Your task to perform on an android device: turn pop-ups on in chrome Image 0: 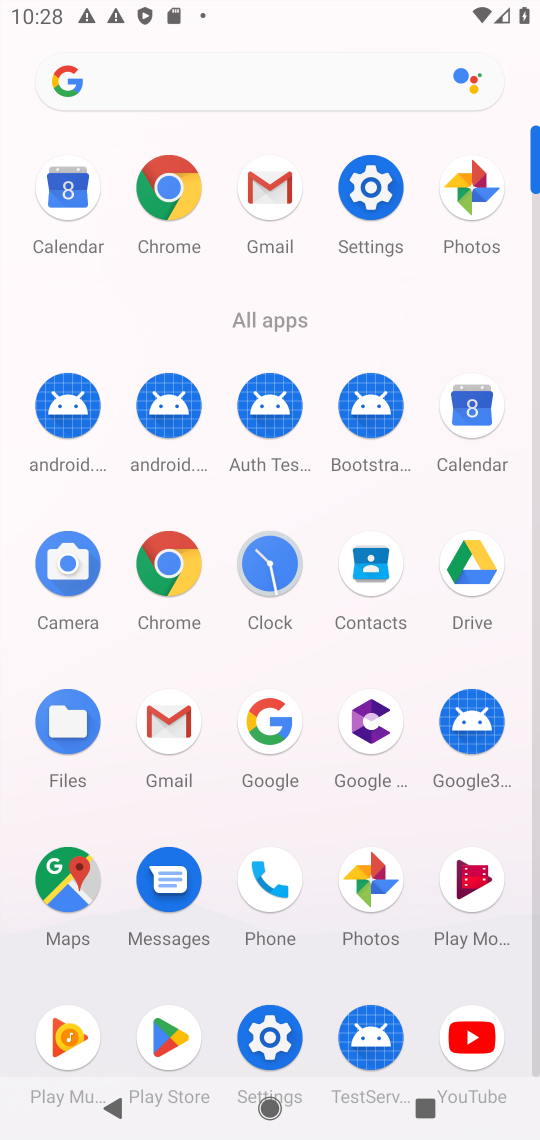
Step 0: click (165, 194)
Your task to perform on an android device: turn pop-ups on in chrome Image 1: 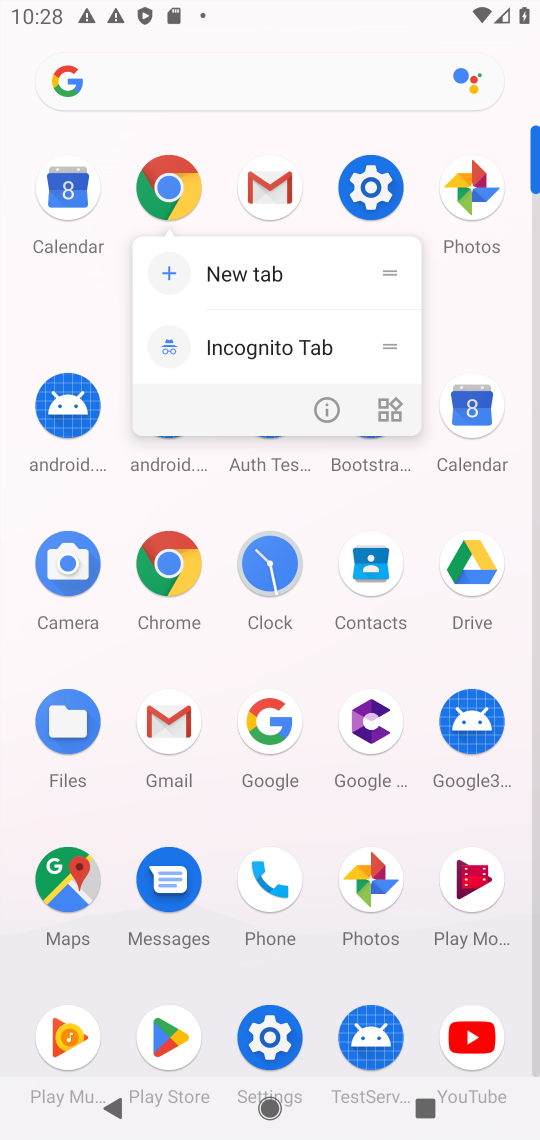
Step 1: click (168, 182)
Your task to perform on an android device: turn pop-ups on in chrome Image 2: 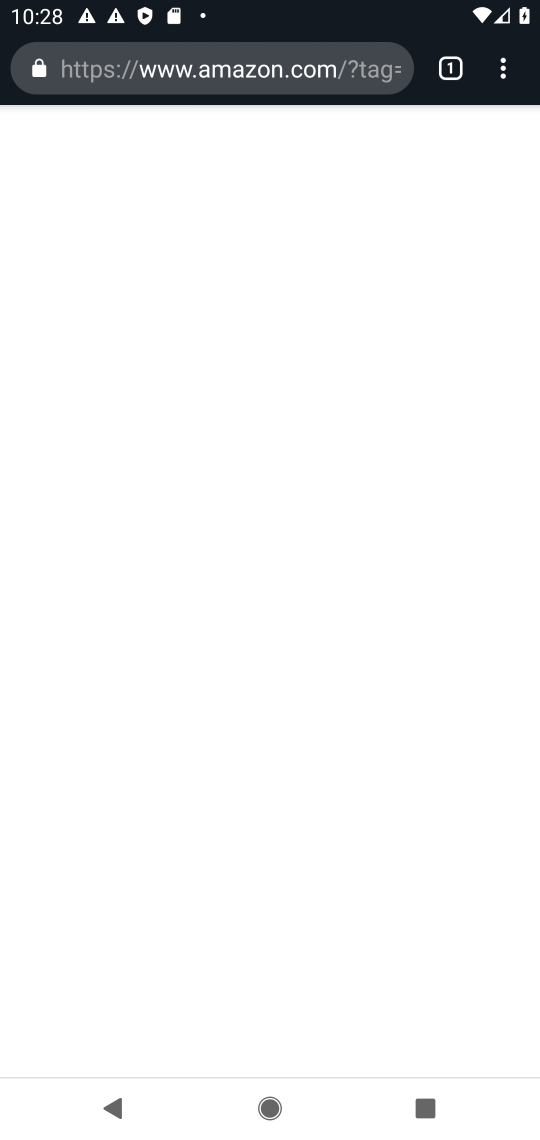
Step 2: click (502, 81)
Your task to perform on an android device: turn pop-ups on in chrome Image 3: 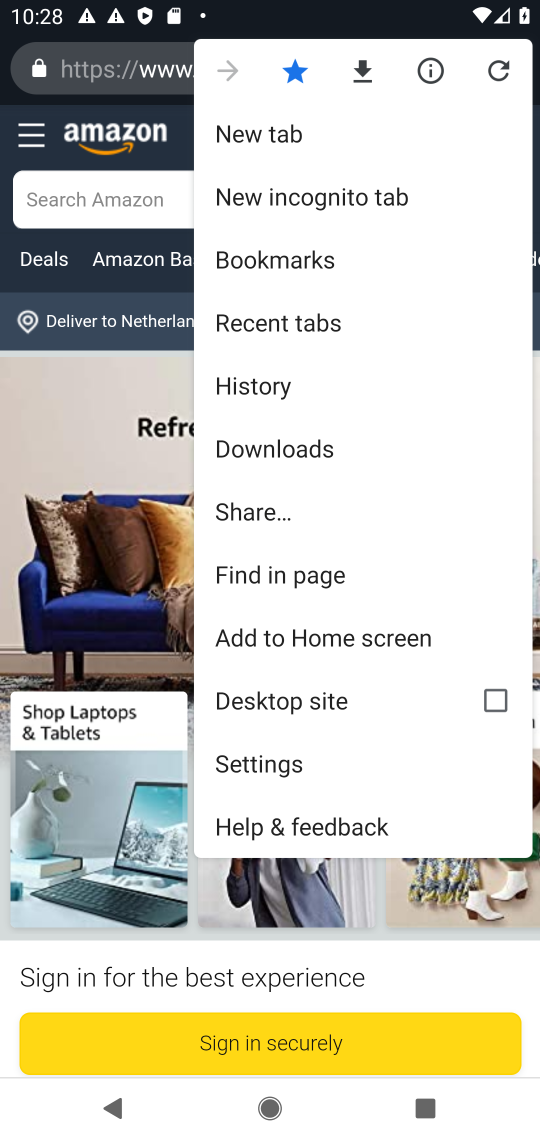
Step 3: click (255, 760)
Your task to perform on an android device: turn pop-ups on in chrome Image 4: 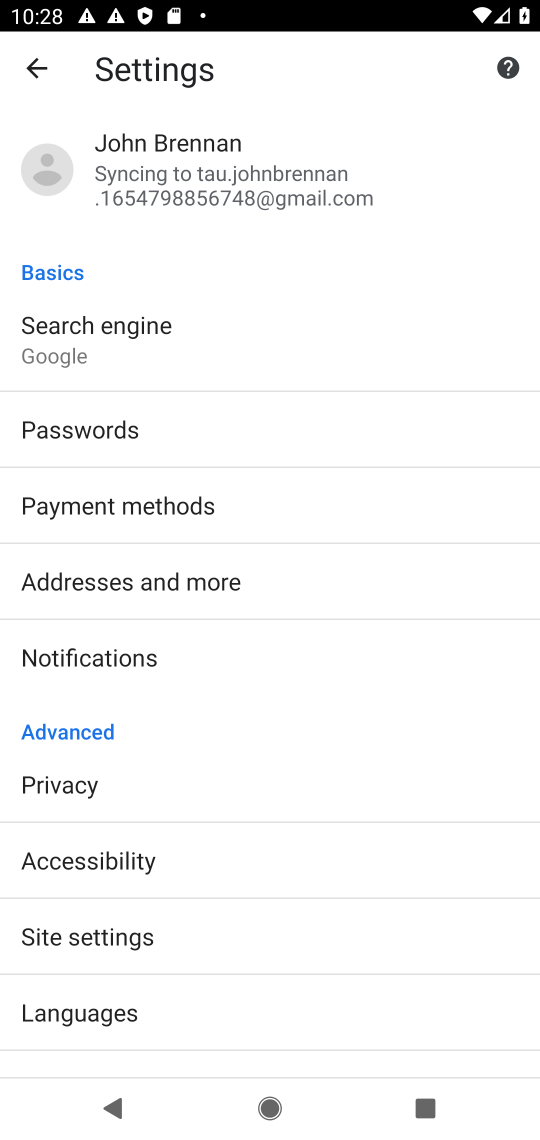
Step 4: drag from (112, 899) to (112, 458)
Your task to perform on an android device: turn pop-ups on in chrome Image 5: 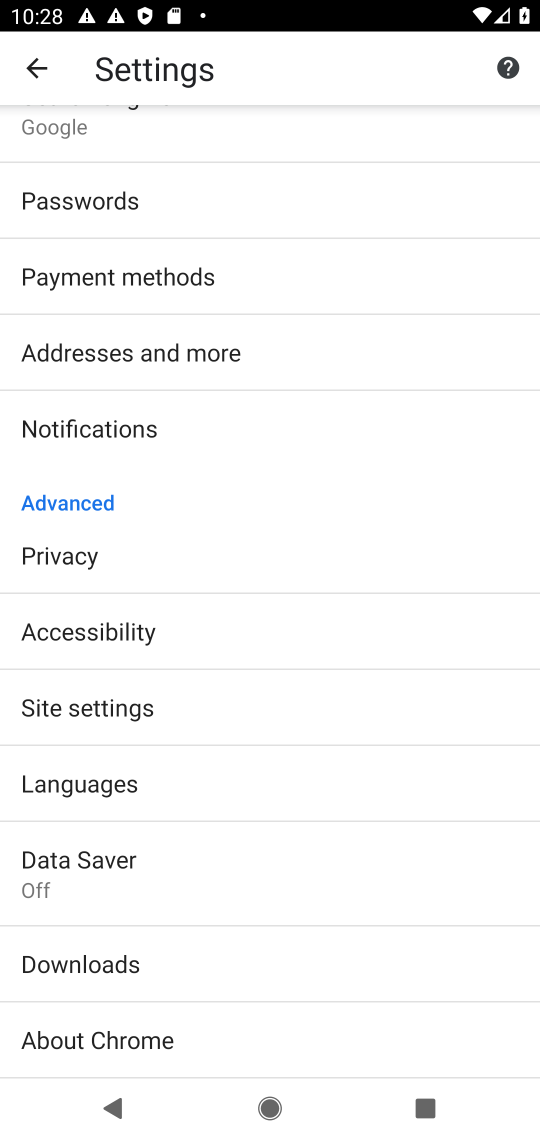
Step 5: click (62, 712)
Your task to perform on an android device: turn pop-ups on in chrome Image 6: 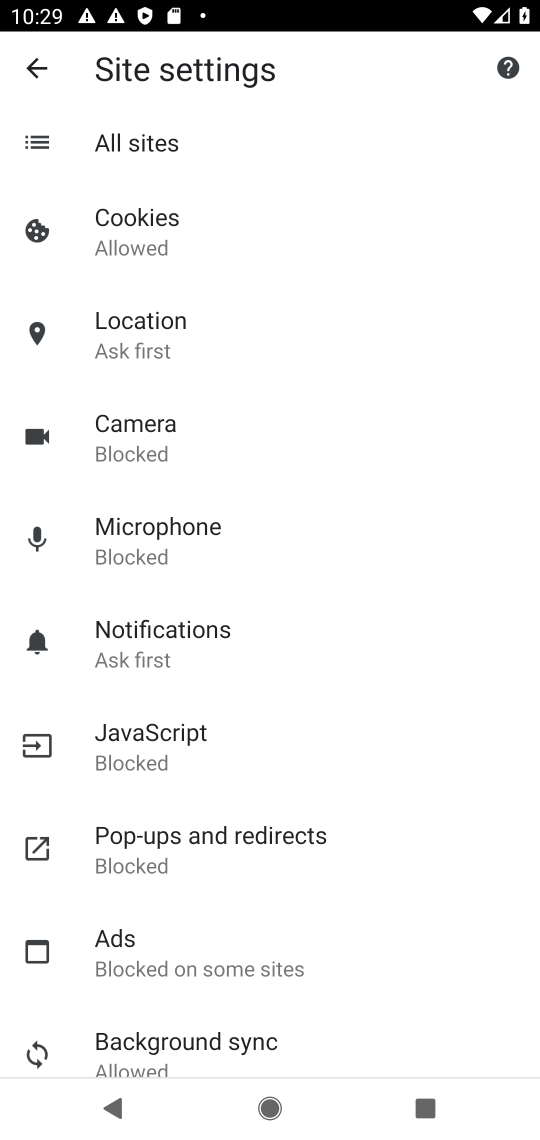
Step 6: click (183, 868)
Your task to perform on an android device: turn pop-ups on in chrome Image 7: 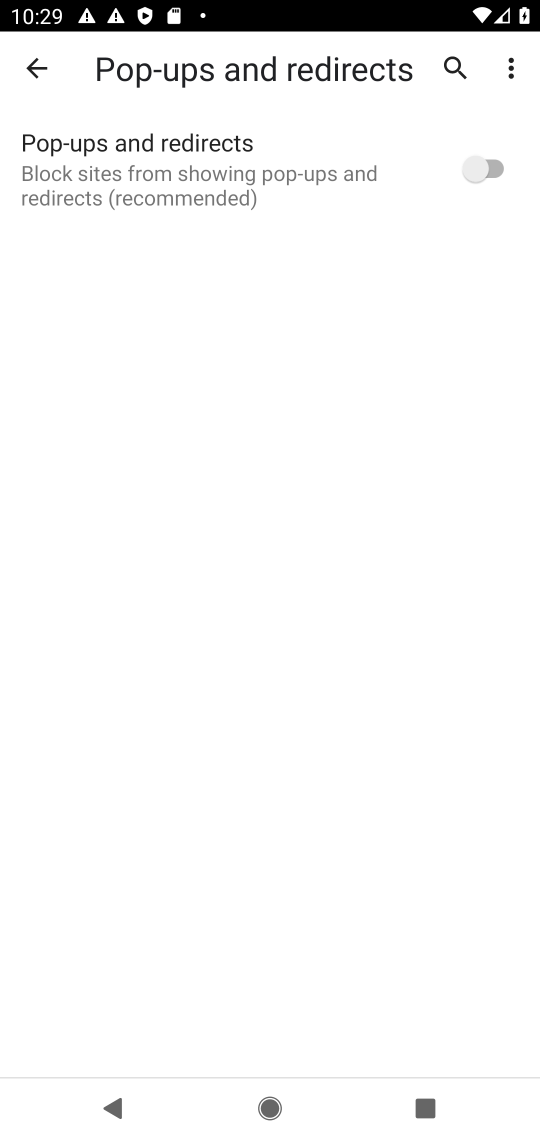
Step 7: click (501, 175)
Your task to perform on an android device: turn pop-ups on in chrome Image 8: 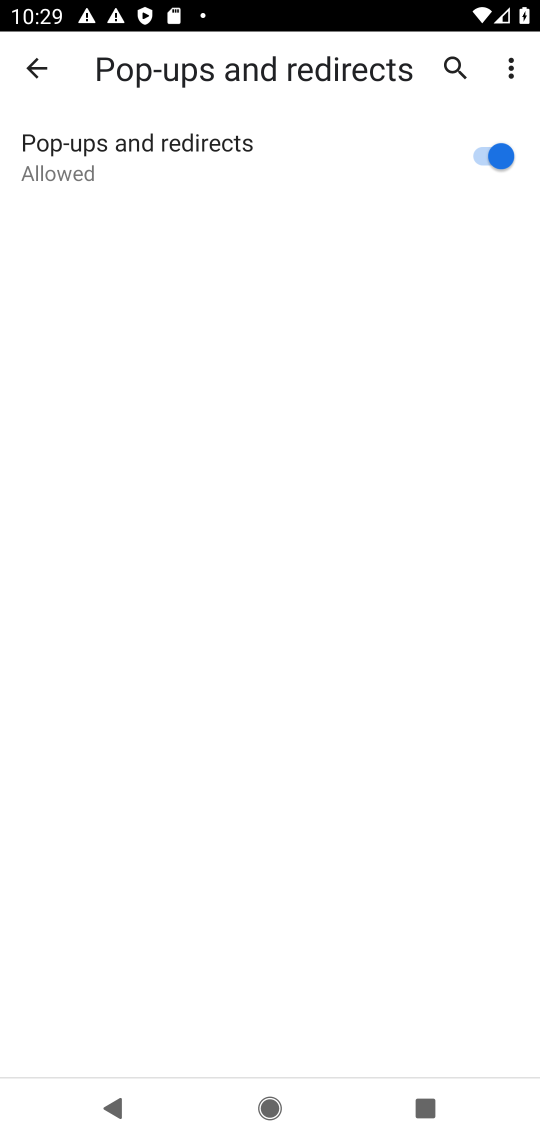
Step 8: task complete